Your task to perform on an android device: turn off wifi Image 0: 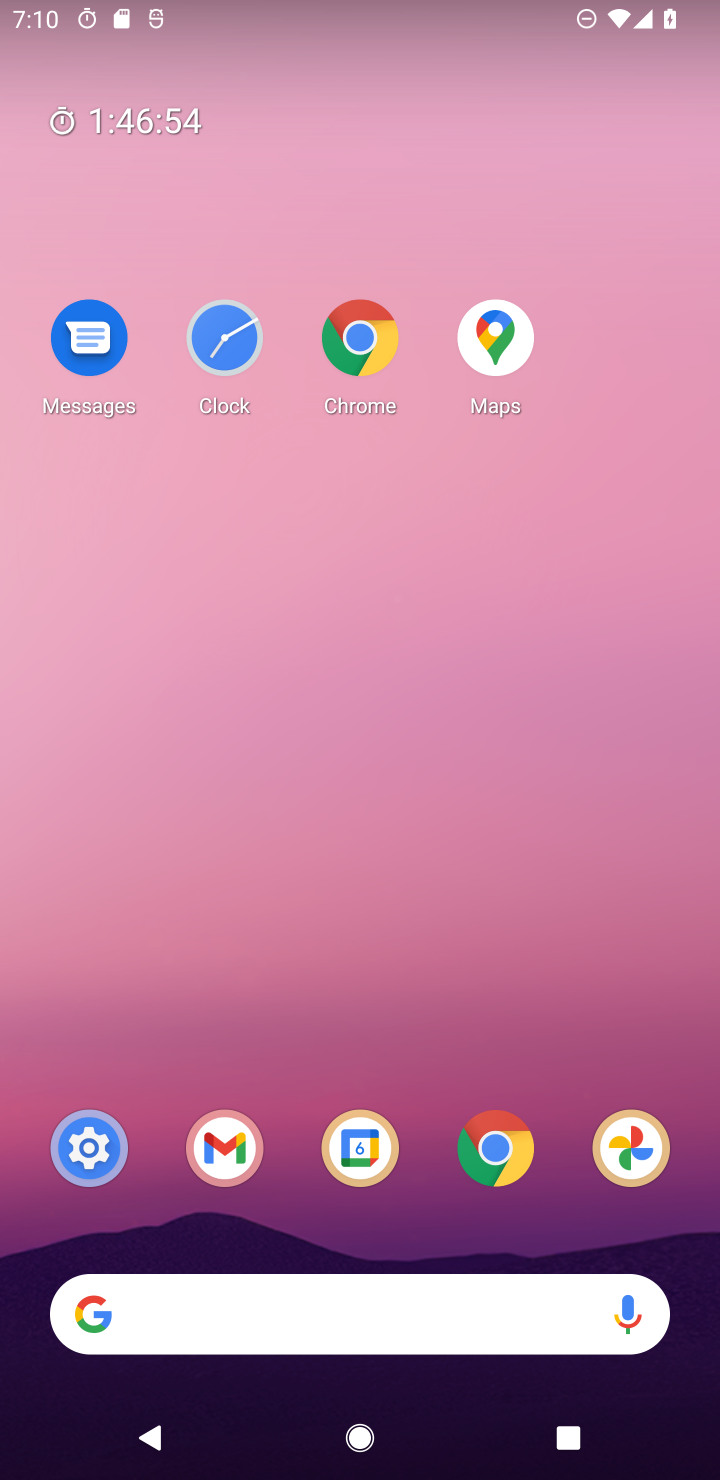
Step 0: drag from (313, 1184) to (532, 117)
Your task to perform on an android device: turn off wifi Image 1: 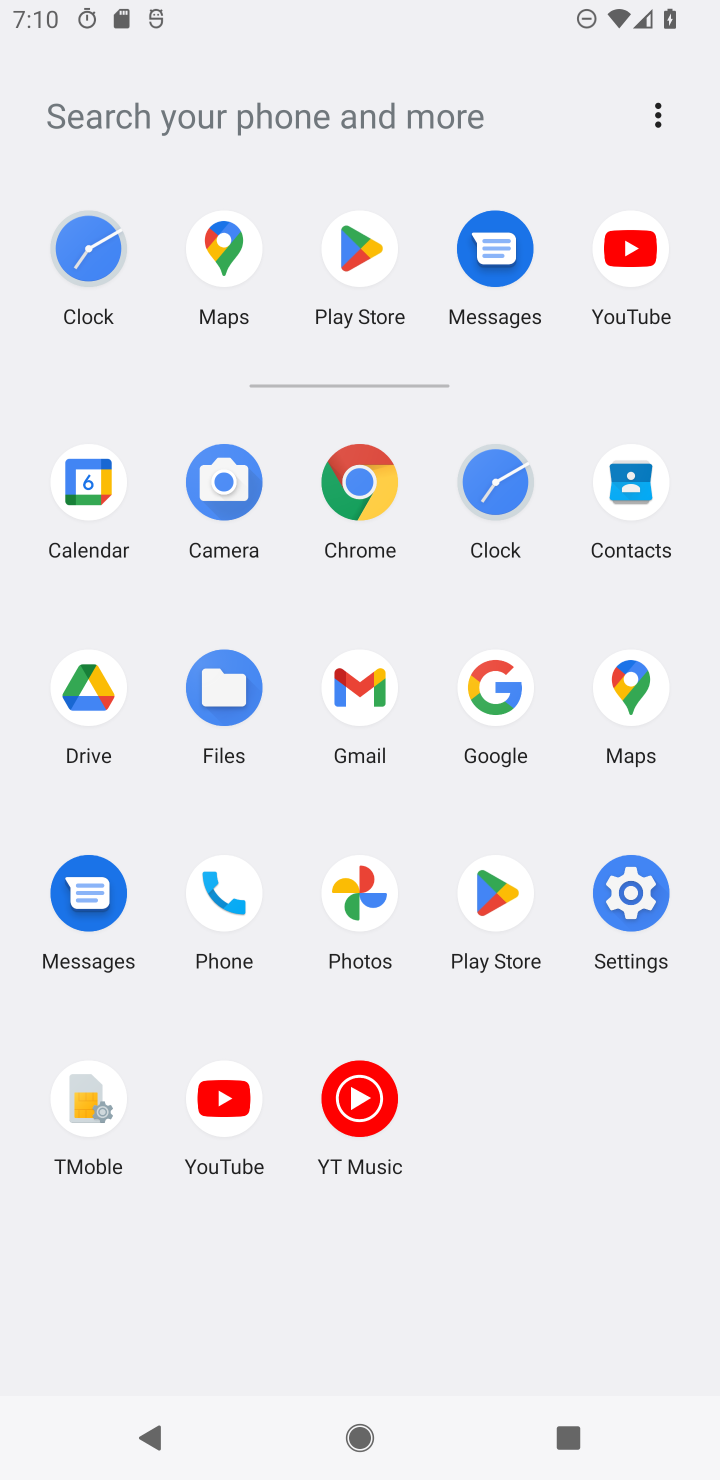
Step 1: click (631, 885)
Your task to perform on an android device: turn off wifi Image 2: 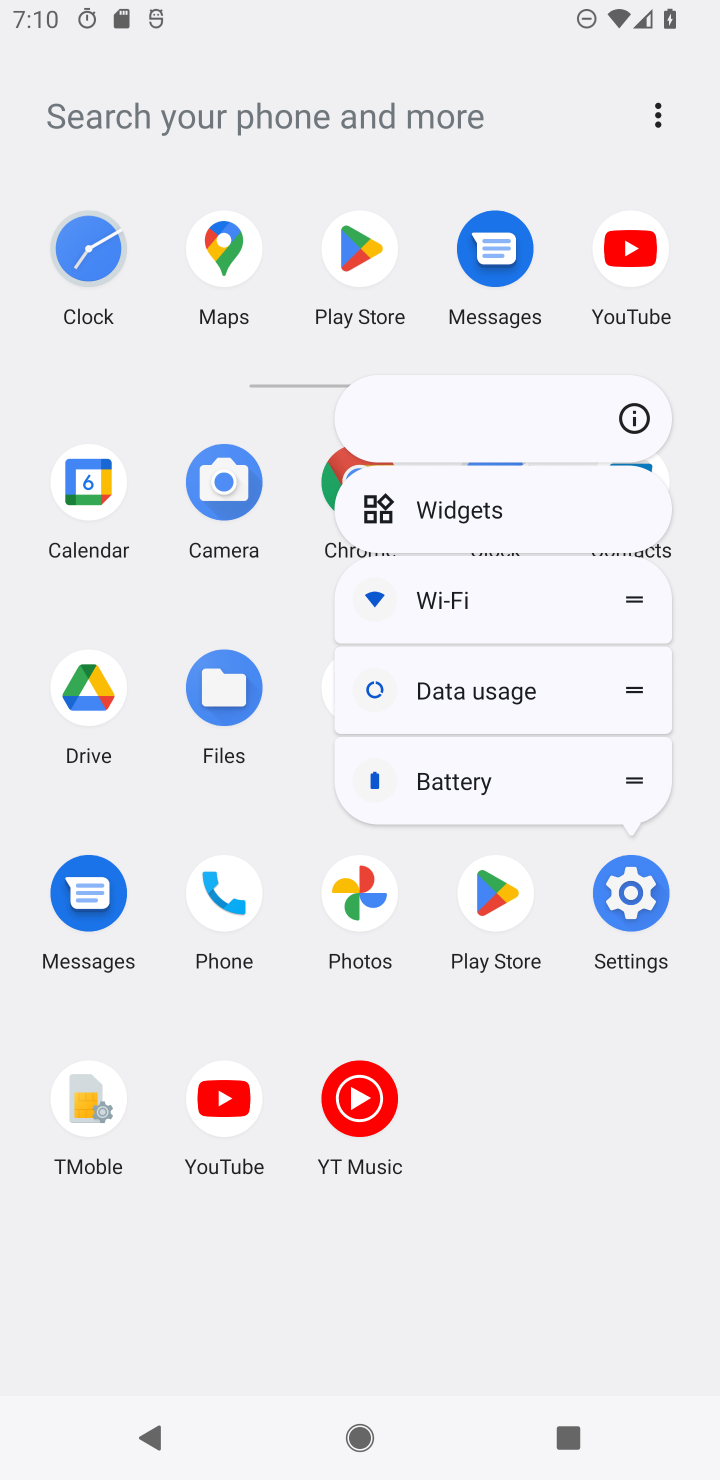
Step 2: click (631, 411)
Your task to perform on an android device: turn off wifi Image 3: 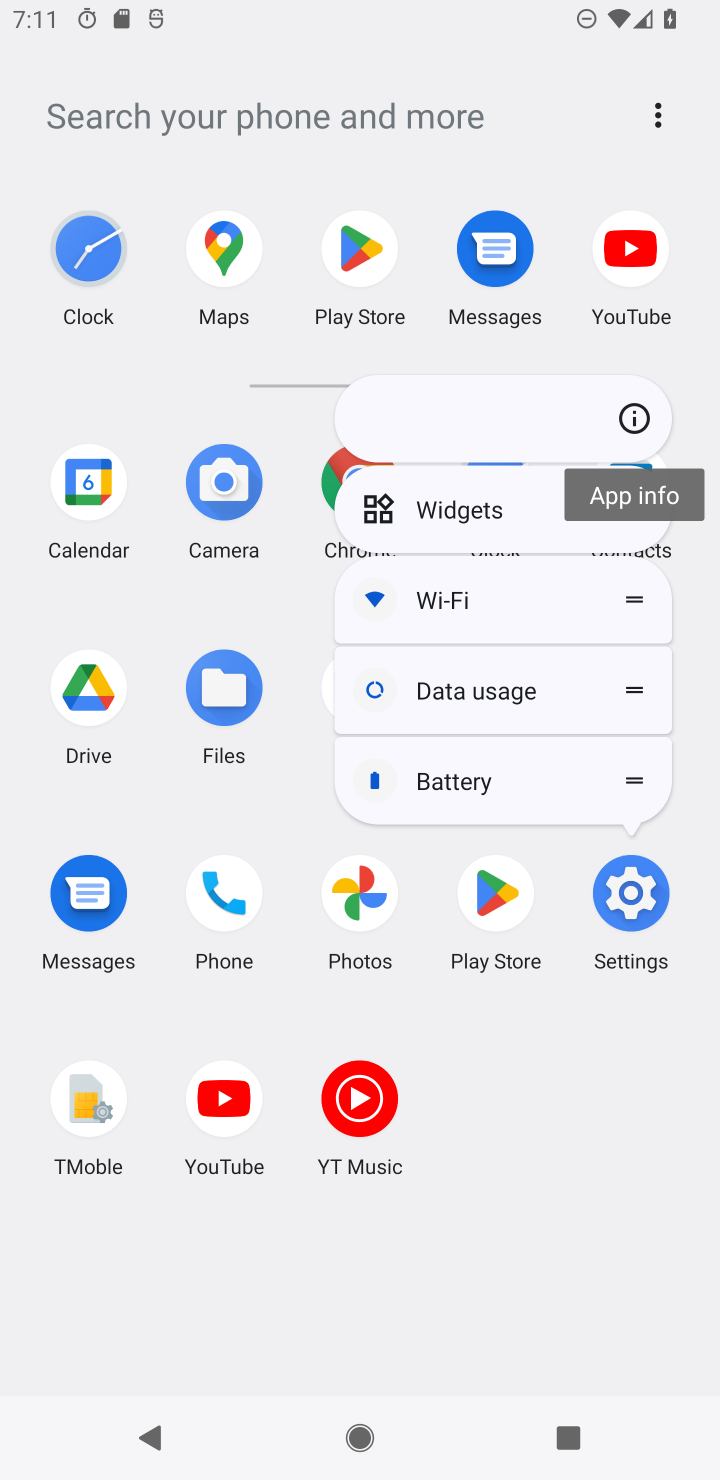
Step 3: click (636, 400)
Your task to perform on an android device: turn off wifi Image 4: 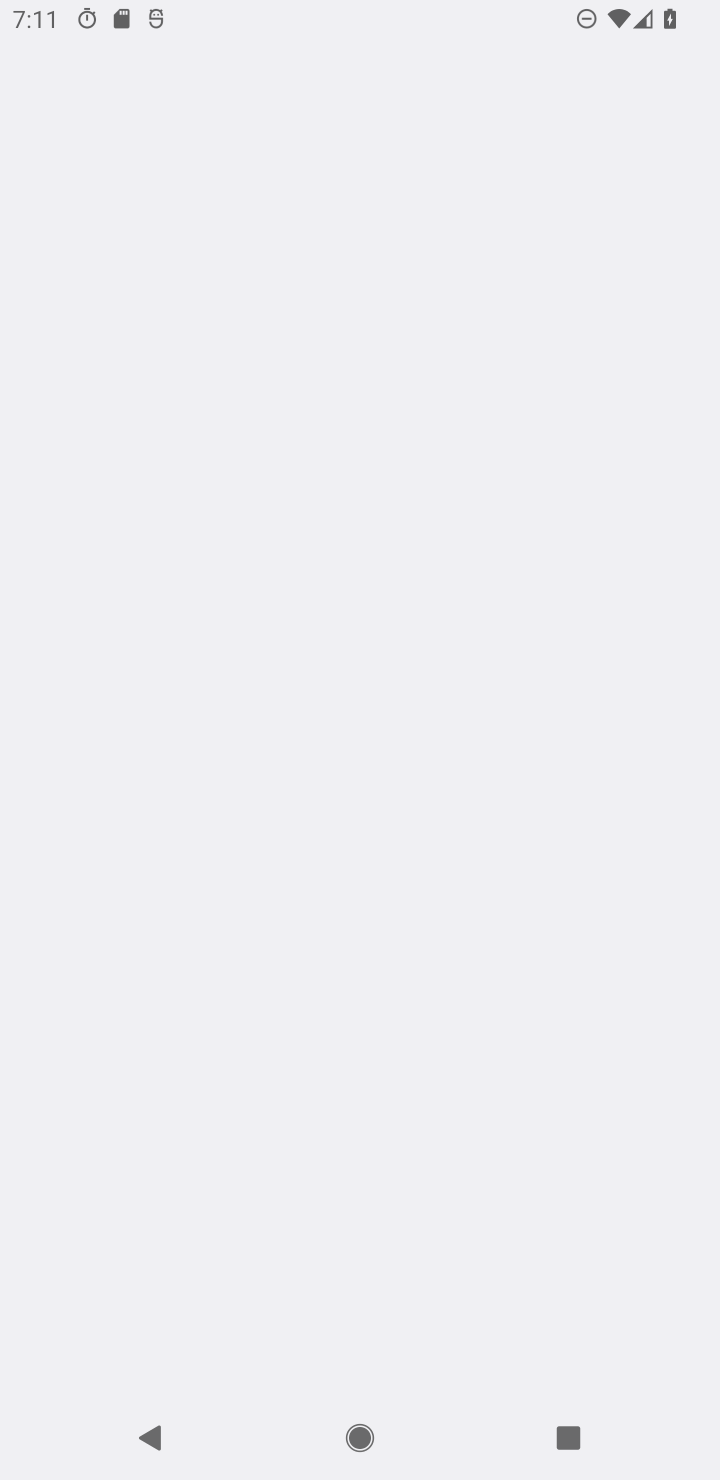
Step 4: click (636, 400)
Your task to perform on an android device: turn off wifi Image 5: 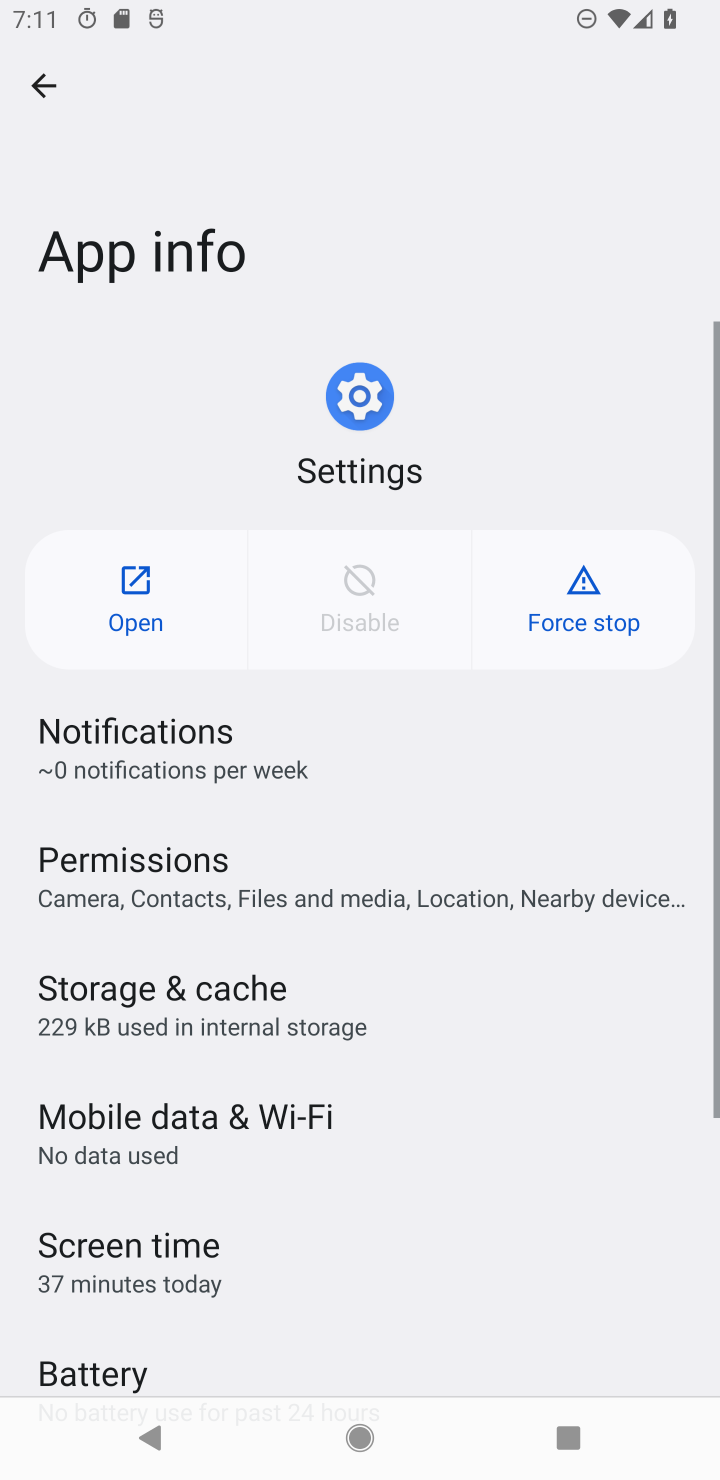
Step 5: click (142, 574)
Your task to perform on an android device: turn off wifi Image 6: 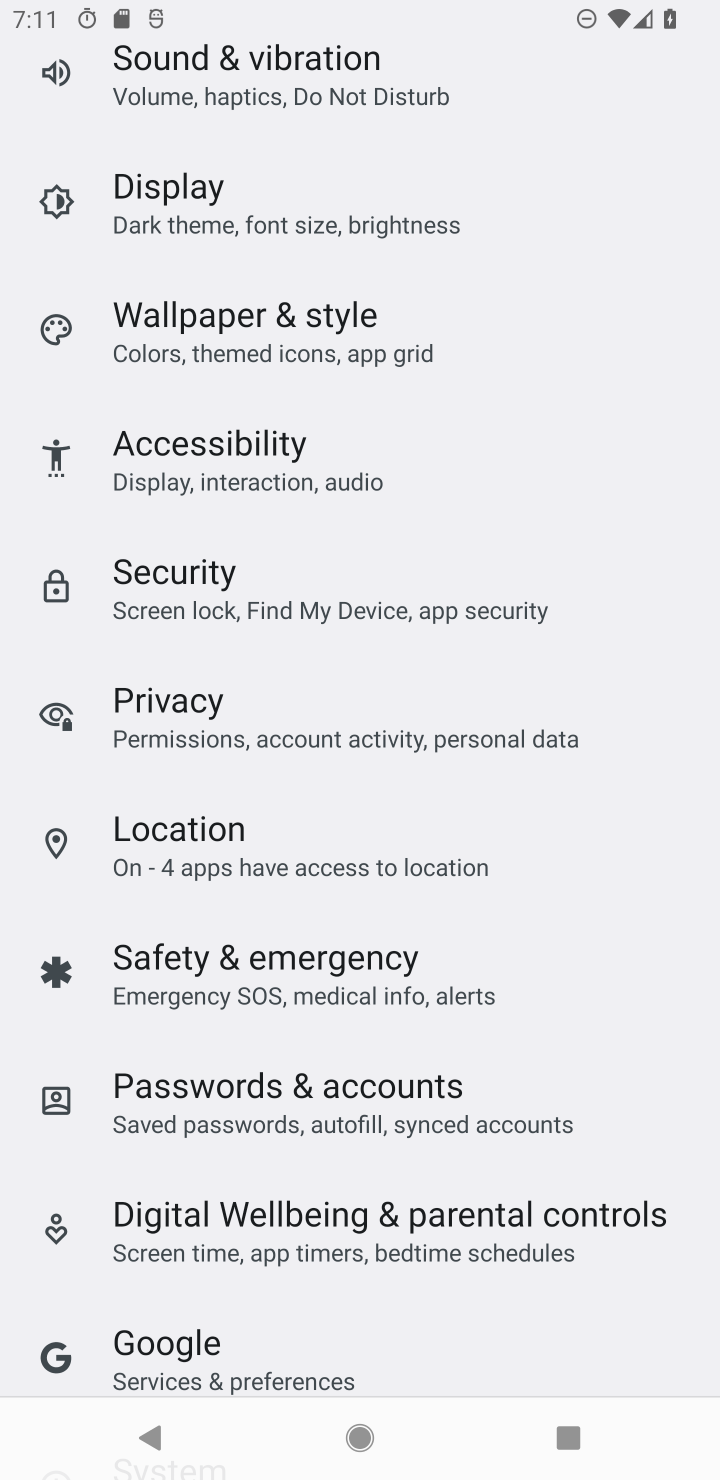
Step 6: drag from (356, 318) to (455, 1466)
Your task to perform on an android device: turn off wifi Image 7: 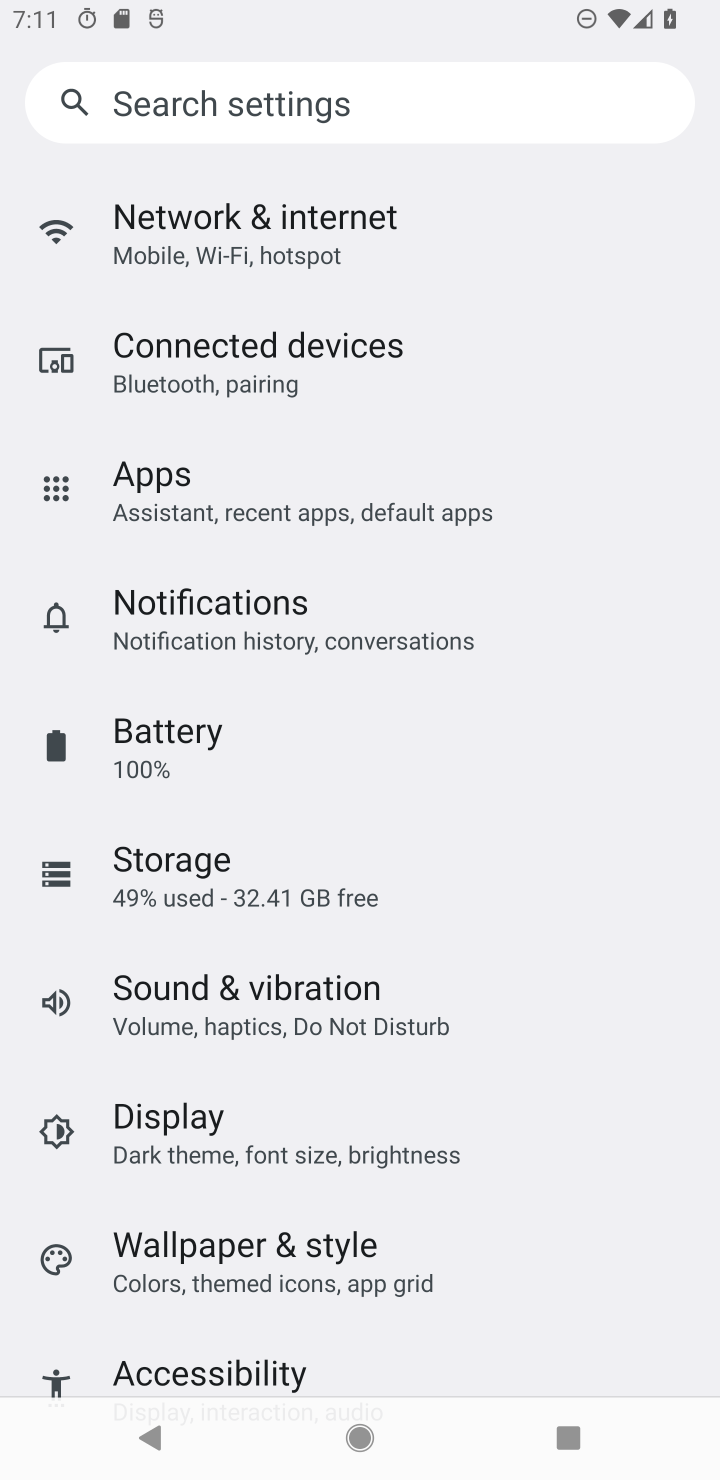
Step 7: click (265, 218)
Your task to perform on an android device: turn off wifi Image 8: 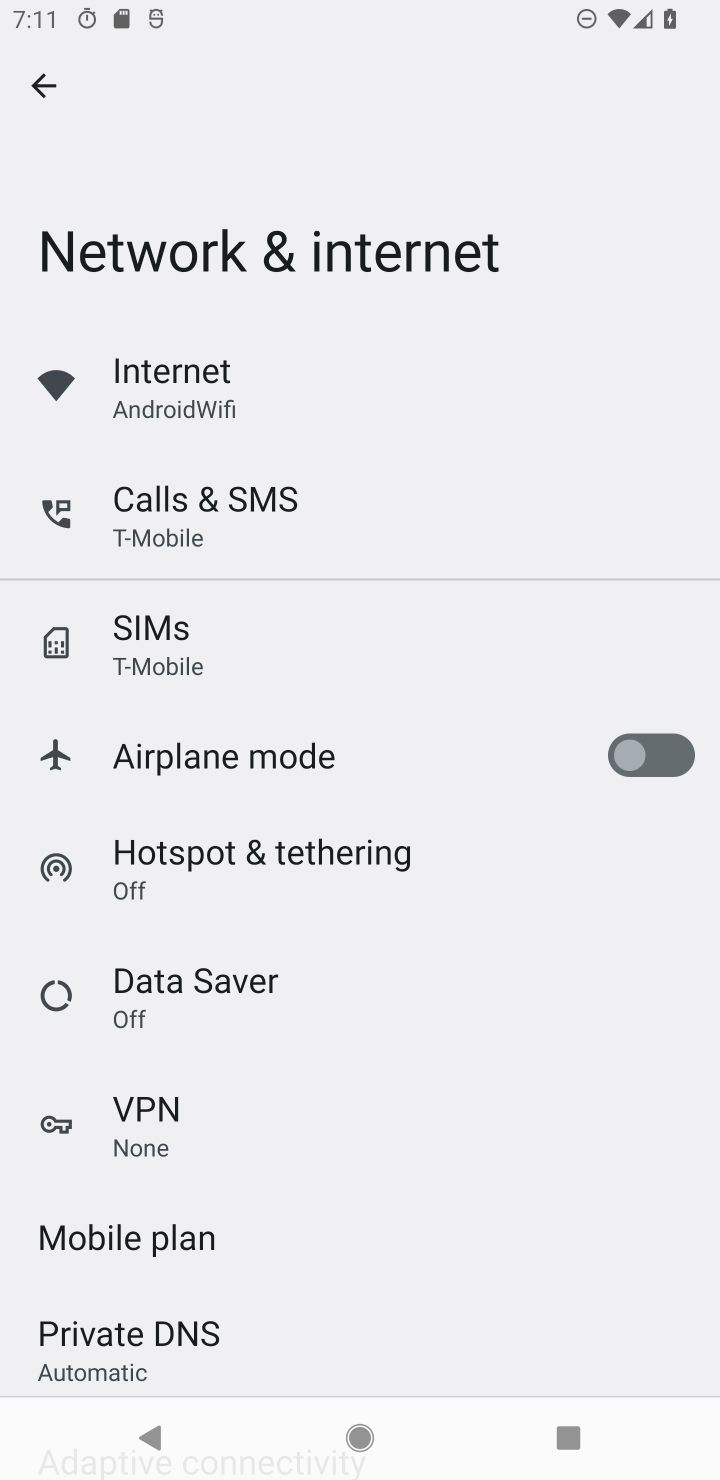
Step 8: click (238, 412)
Your task to perform on an android device: turn off wifi Image 9: 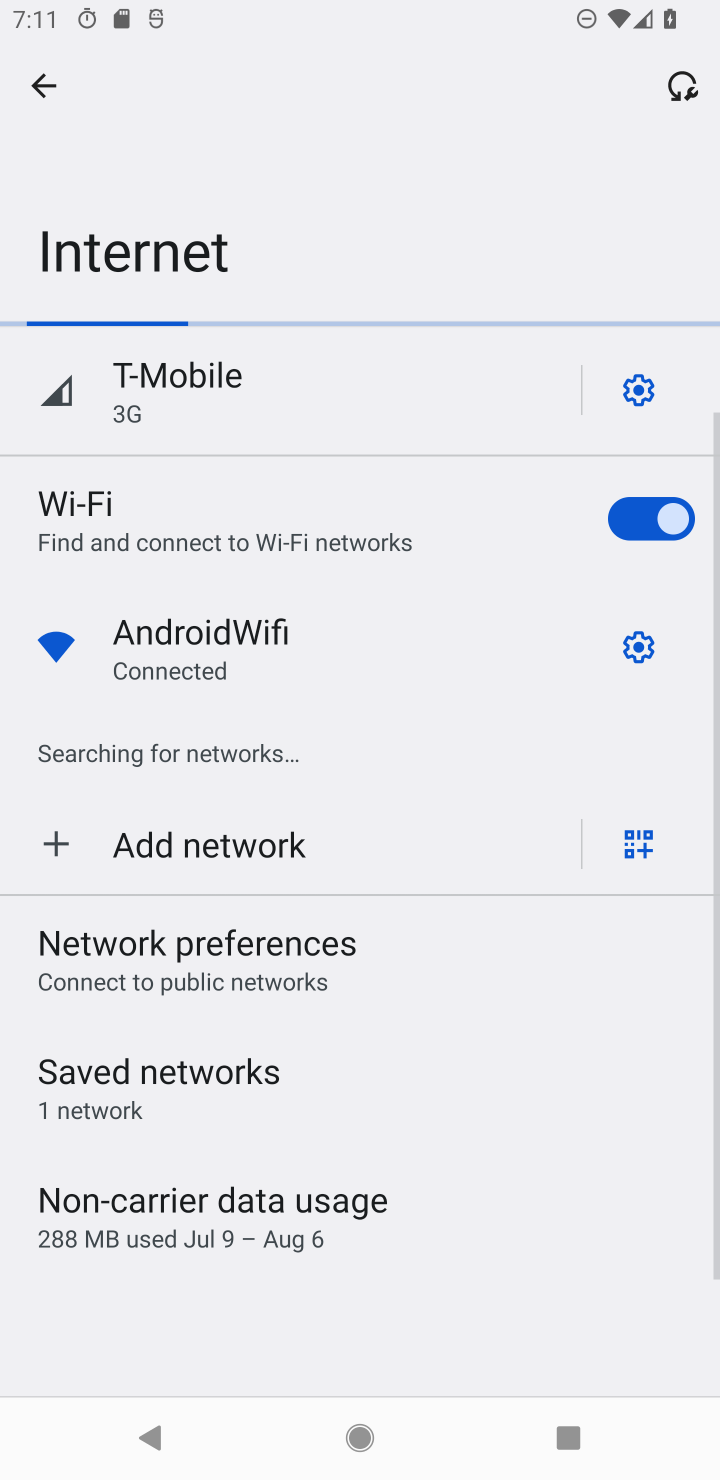
Step 9: click (664, 508)
Your task to perform on an android device: turn off wifi Image 10: 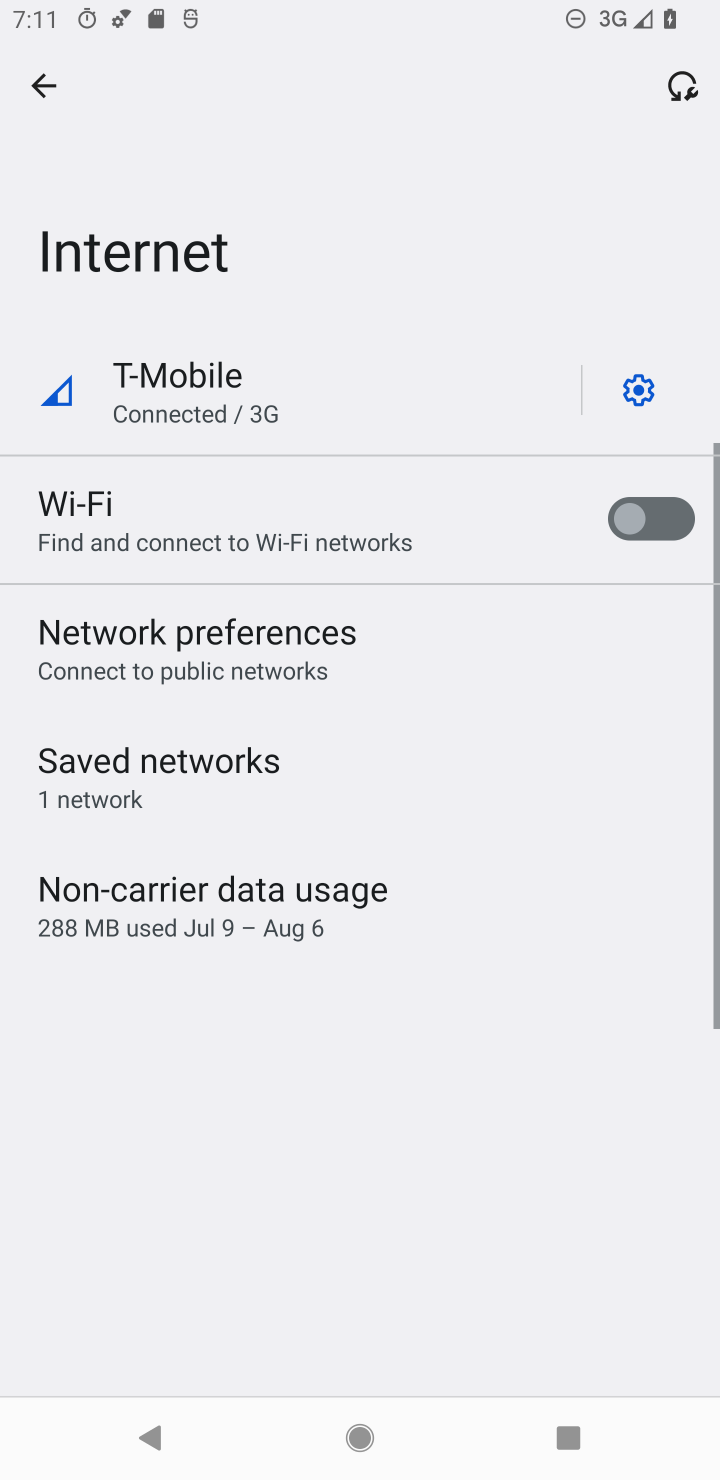
Step 10: task complete